Your task to perform on an android device: turn vacation reply on in the gmail app Image 0: 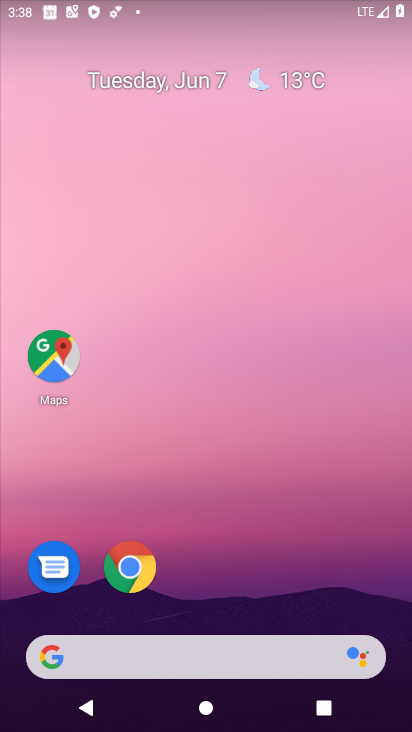
Step 0: drag from (224, 613) to (245, 3)
Your task to perform on an android device: turn vacation reply on in the gmail app Image 1: 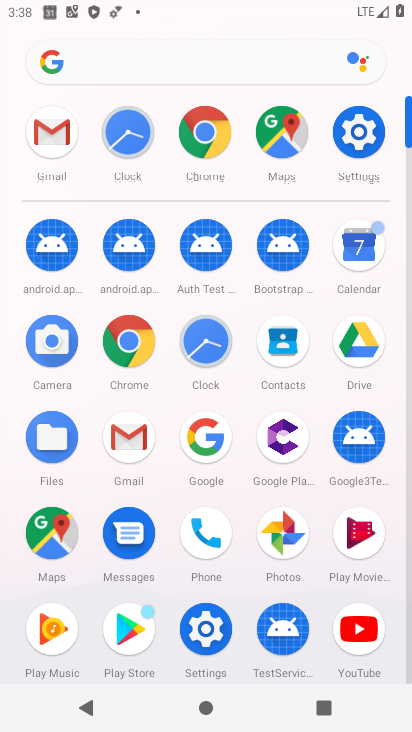
Step 1: click (37, 145)
Your task to perform on an android device: turn vacation reply on in the gmail app Image 2: 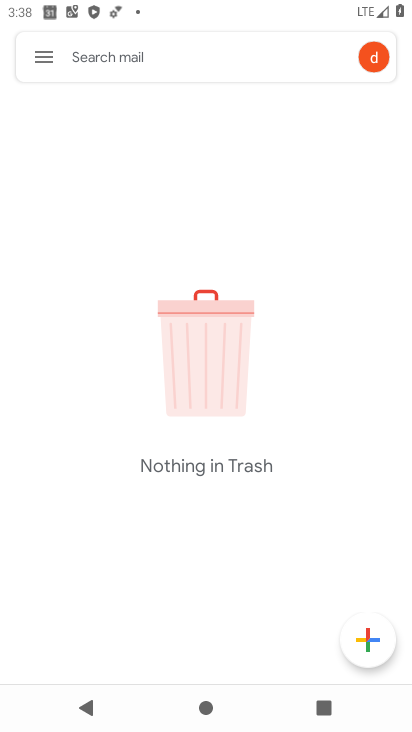
Step 2: click (49, 49)
Your task to perform on an android device: turn vacation reply on in the gmail app Image 3: 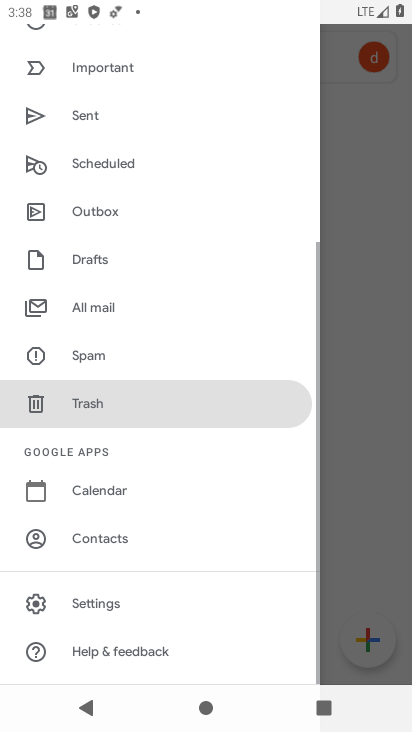
Step 3: click (96, 610)
Your task to perform on an android device: turn vacation reply on in the gmail app Image 4: 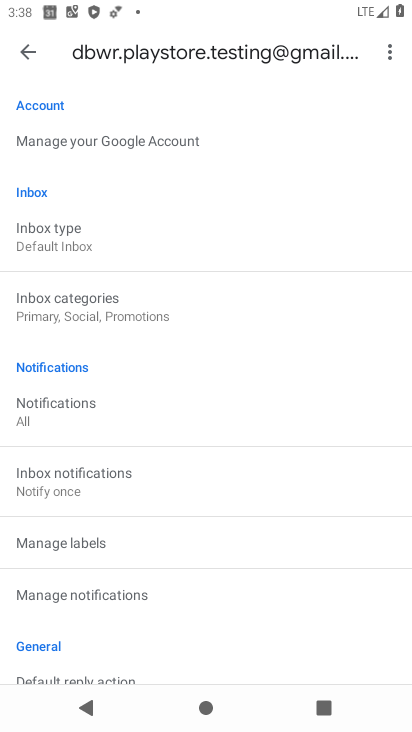
Step 4: drag from (96, 610) to (165, 194)
Your task to perform on an android device: turn vacation reply on in the gmail app Image 5: 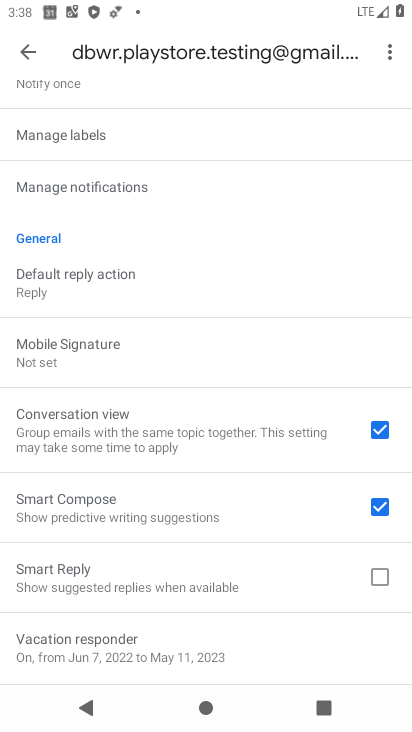
Step 5: click (110, 658)
Your task to perform on an android device: turn vacation reply on in the gmail app Image 6: 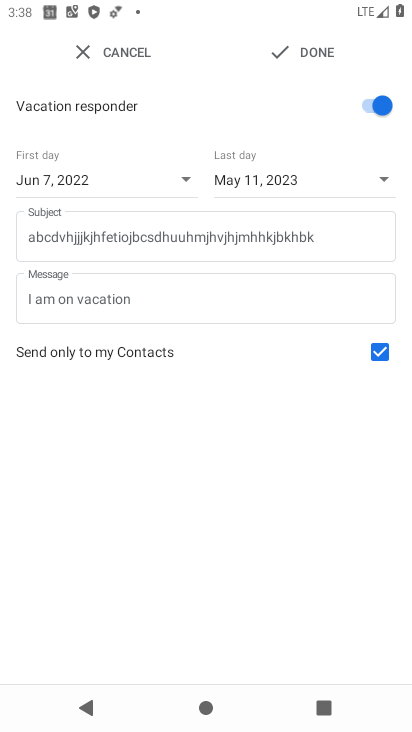
Step 6: task complete